Your task to perform on an android device: Set the phone to "Do not disturb". Image 0: 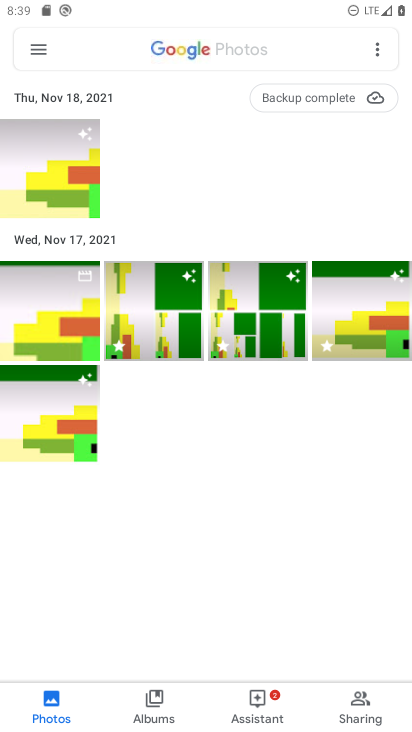
Step 0: press home button
Your task to perform on an android device: Set the phone to "Do not disturb". Image 1: 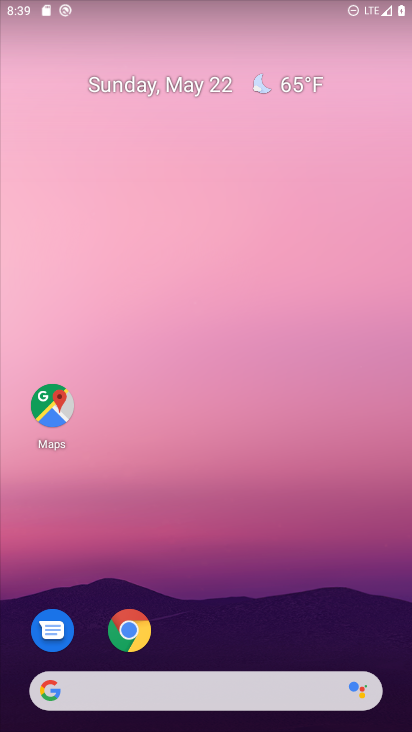
Step 1: drag from (189, 689) to (333, 147)
Your task to perform on an android device: Set the phone to "Do not disturb". Image 2: 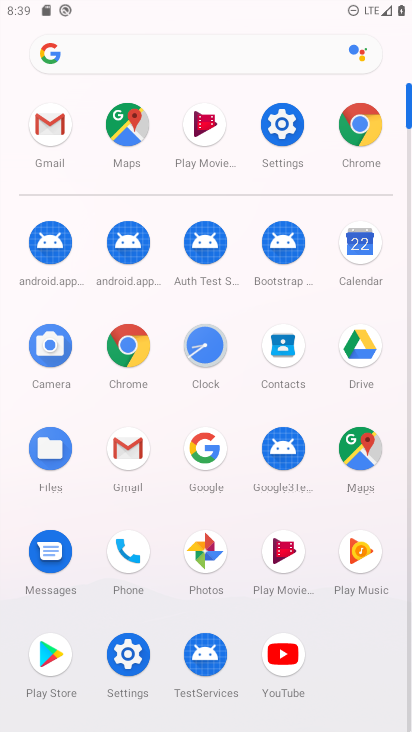
Step 2: click (265, 123)
Your task to perform on an android device: Set the phone to "Do not disturb". Image 3: 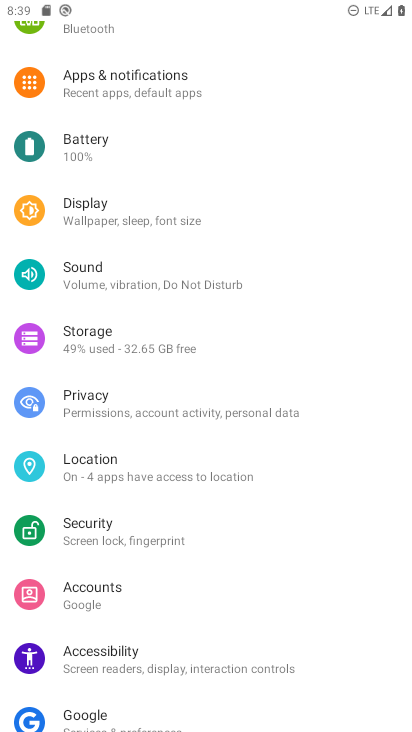
Step 3: click (112, 279)
Your task to perform on an android device: Set the phone to "Do not disturb". Image 4: 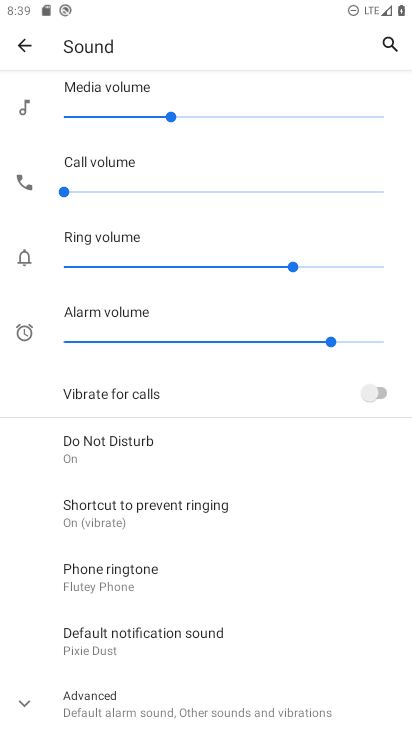
Step 4: click (96, 451)
Your task to perform on an android device: Set the phone to "Do not disturb". Image 5: 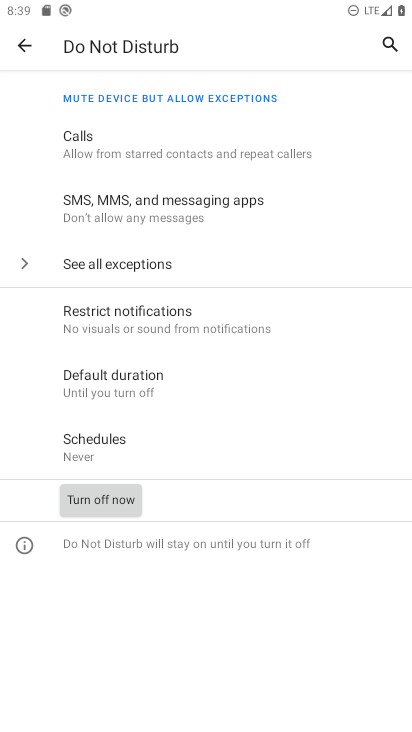
Step 5: task complete